Your task to perform on an android device: install app "Microsoft Authenticator" Image 0: 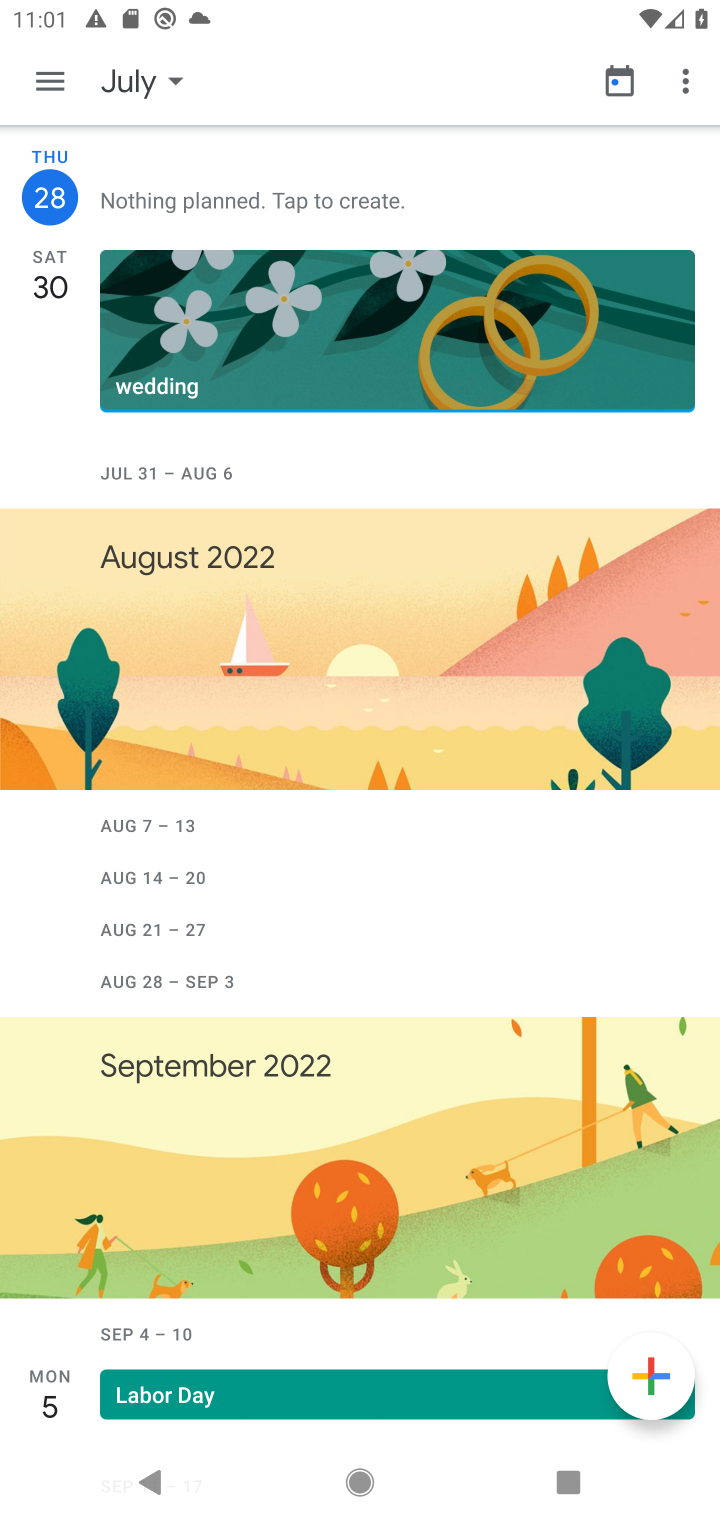
Step 0: press home button
Your task to perform on an android device: install app "Microsoft Authenticator" Image 1: 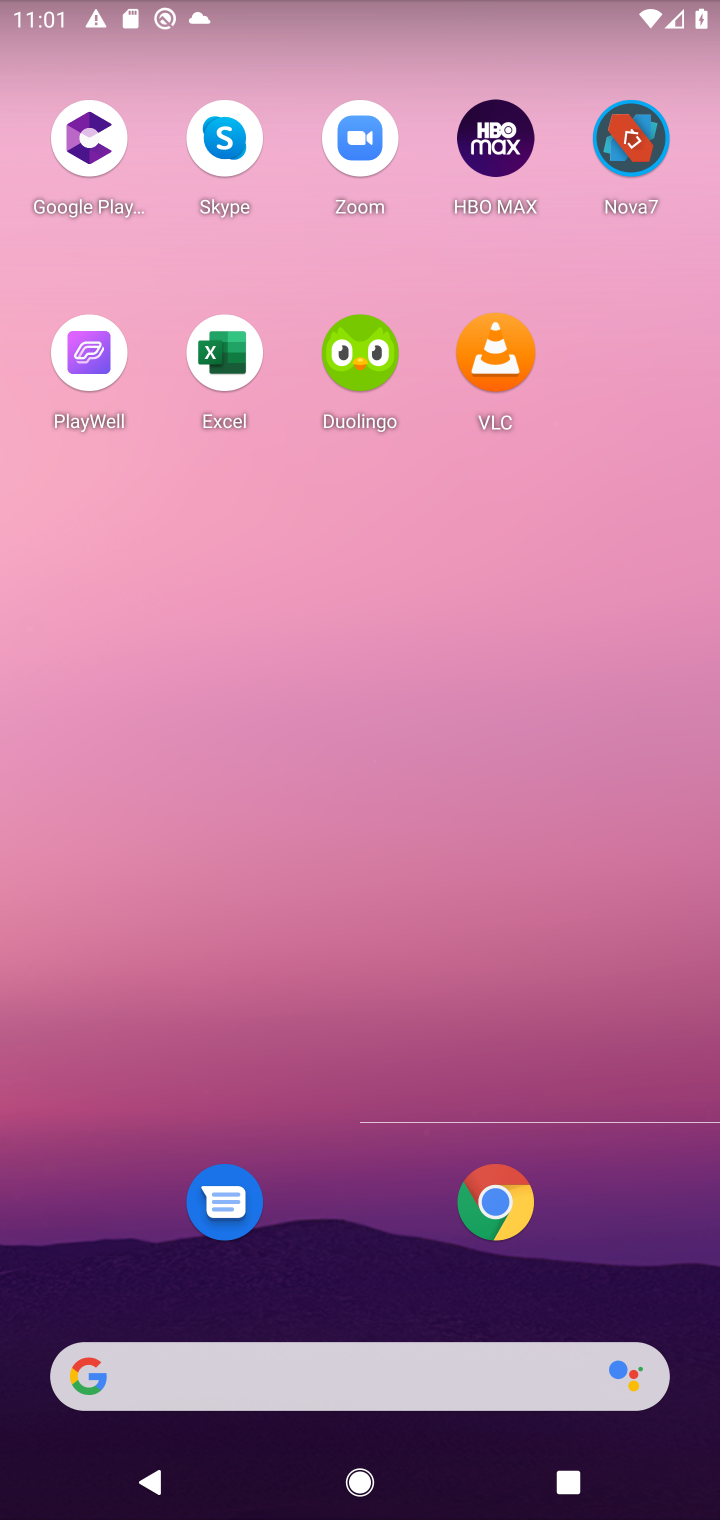
Step 1: click (352, 1363)
Your task to perform on an android device: install app "Microsoft Authenticator" Image 2: 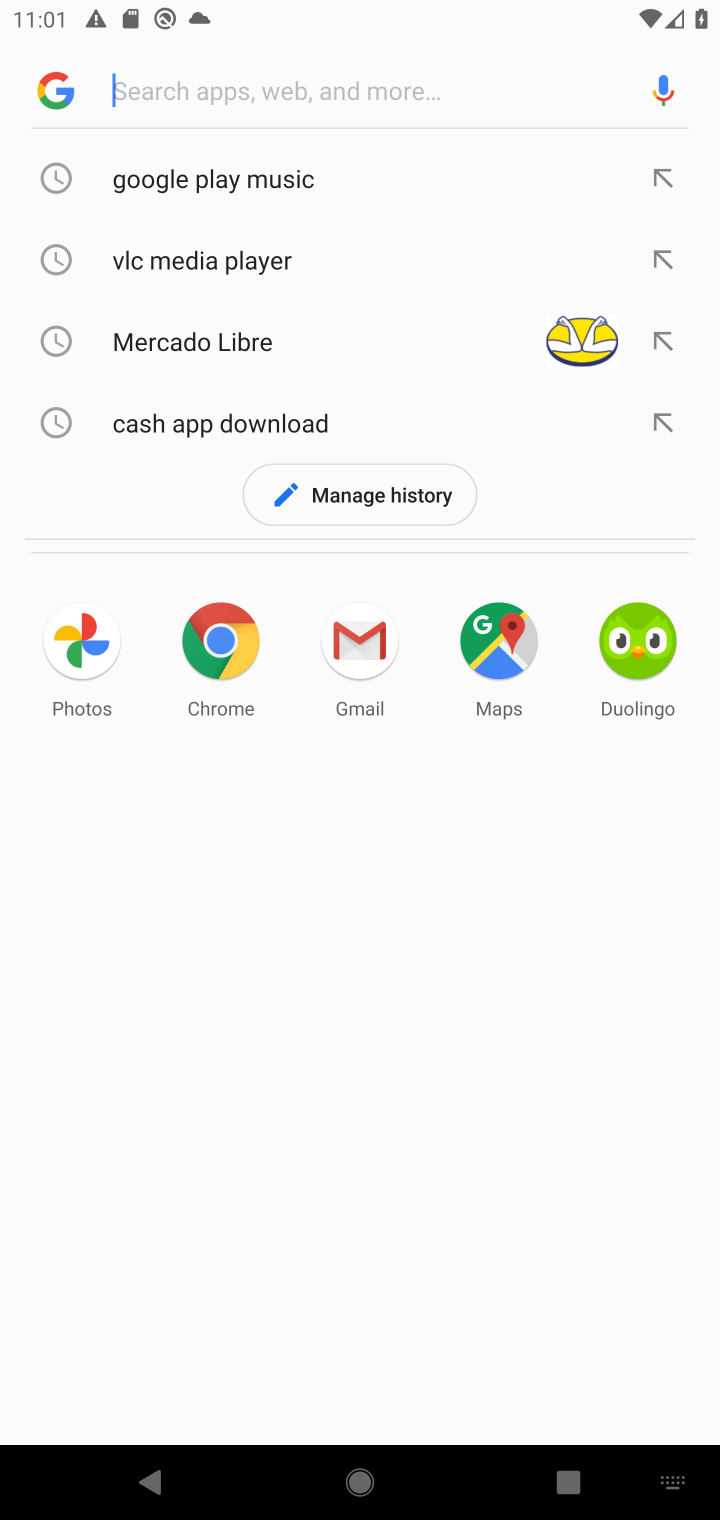
Step 2: type "microsoft authenticator"
Your task to perform on an android device: install app "Microsoft Authenticator" Image 3: 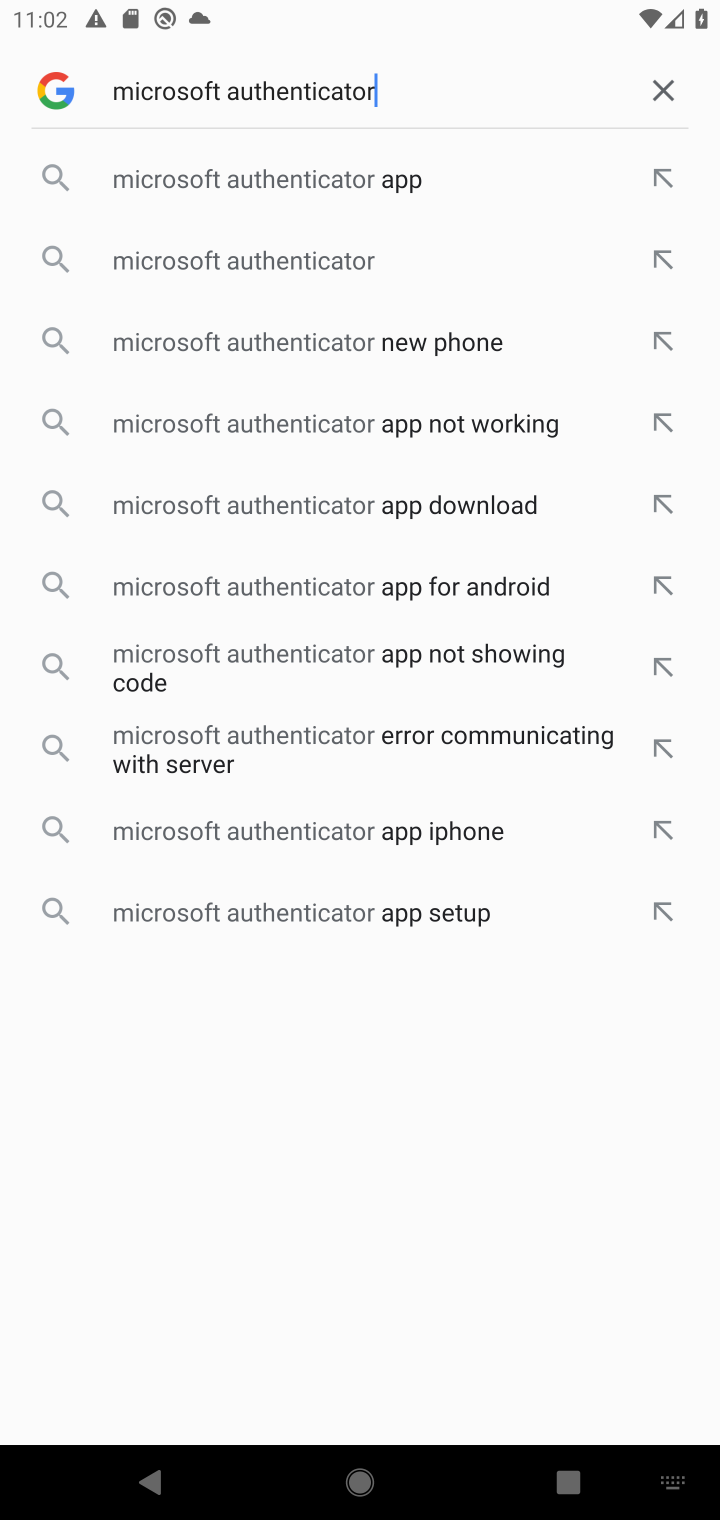
Step 3: click (472, 102)
Your task to perform on an android device: install app "Microsoft Authenticator" Image 4: 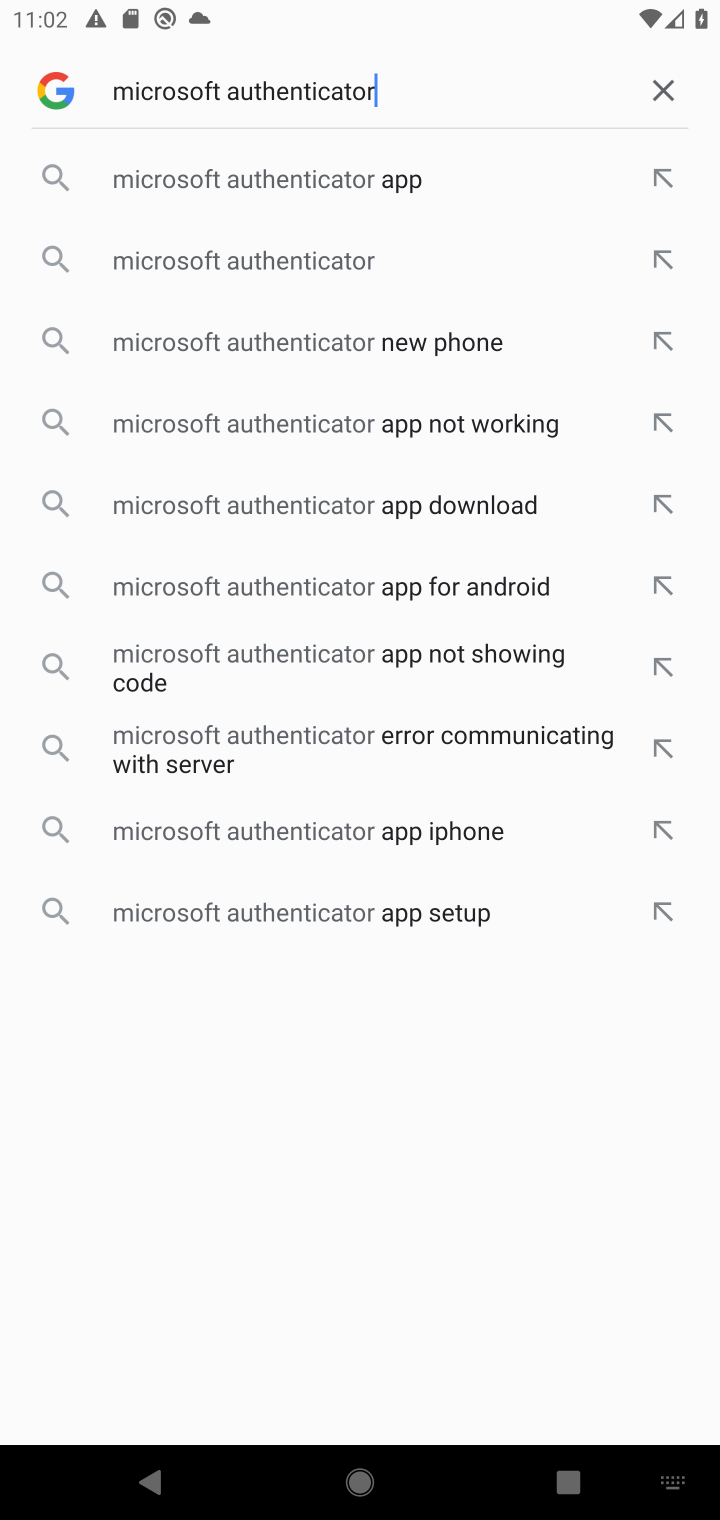
Step 4: click (468, 178)
Your task to perform on an android device: install app "Microsoft Authenticator" Image 5: 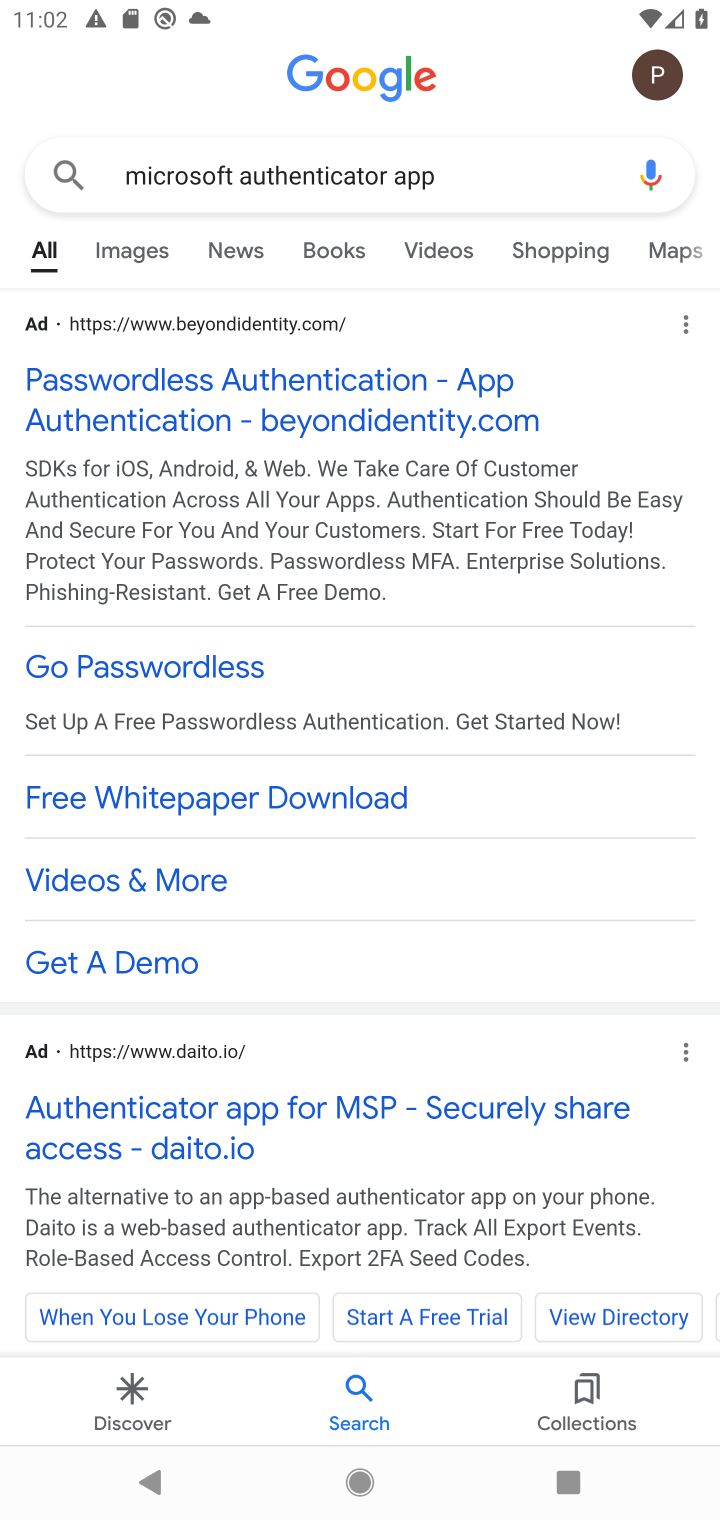
Step 5: drag from (462, 1074) to (458, 464)
Your task to perform on an android device: install app "Microsoft Authenticator" Image 6: 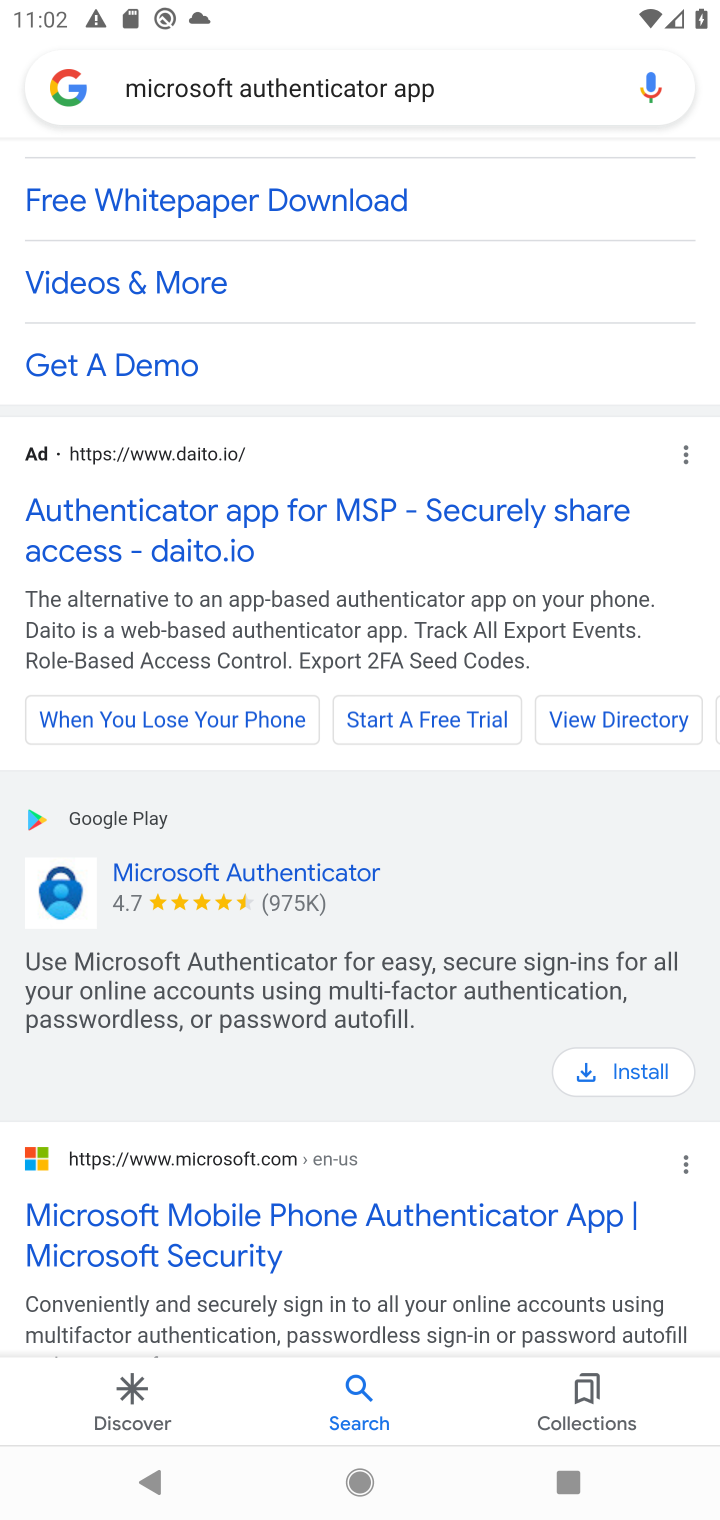
Step 6: click (646, 1072)
Your task to perform on an android device: install app "Microsoft Authenticator" Image 7: 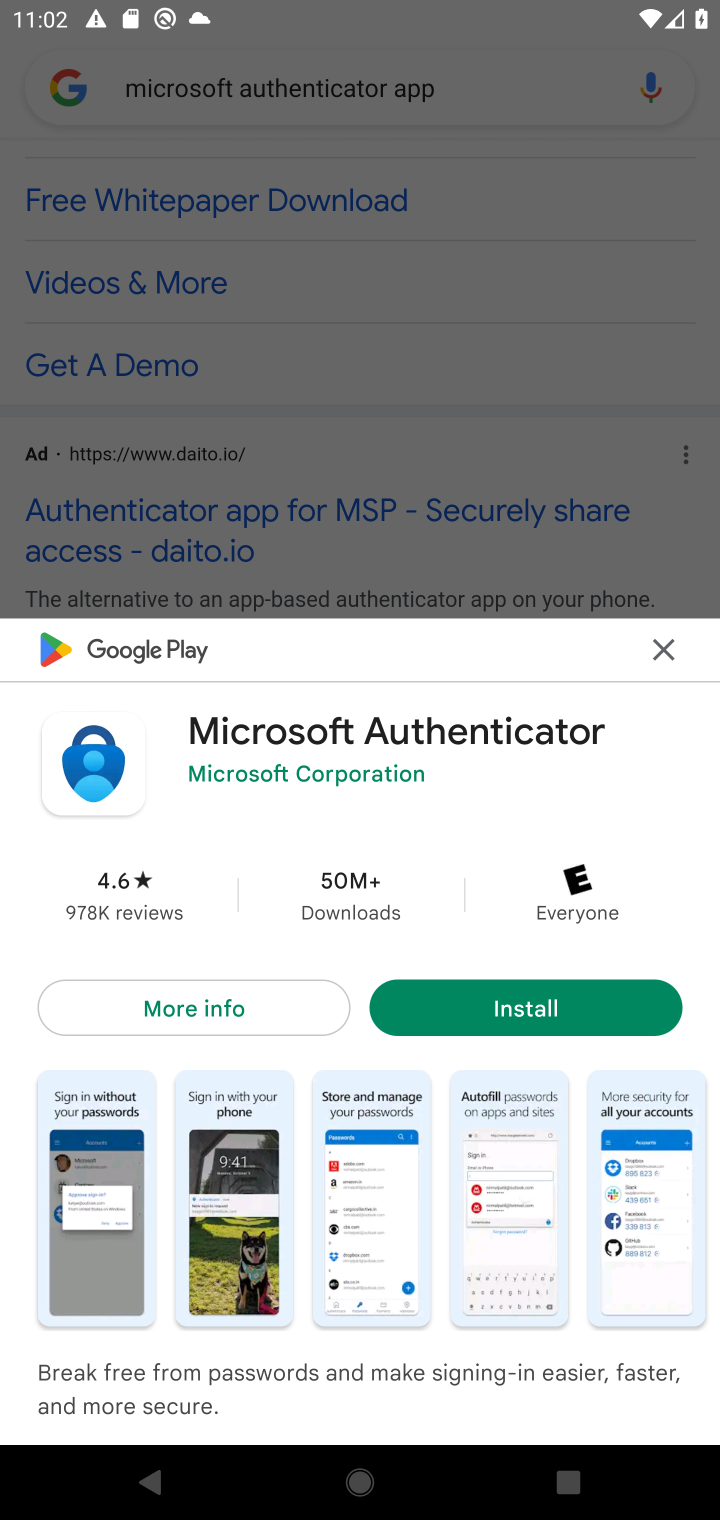
Step 7: click (511, 985)
Your task to perform on an android device: install app "Microsoft Authenticator" Image 8: 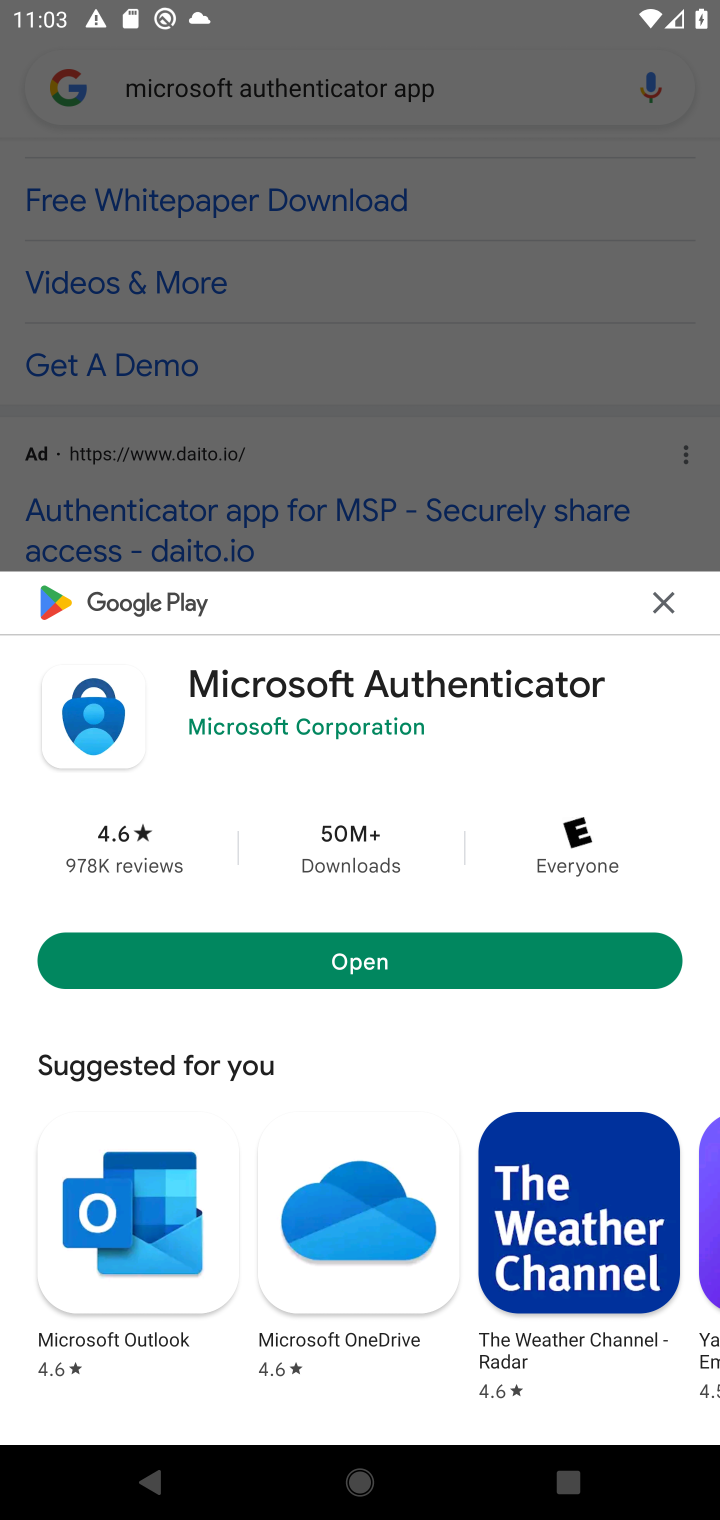
Step 8: click (351, 934)
Your task to perform on an android device: install app "Microsoft Authenticator" Image 9: 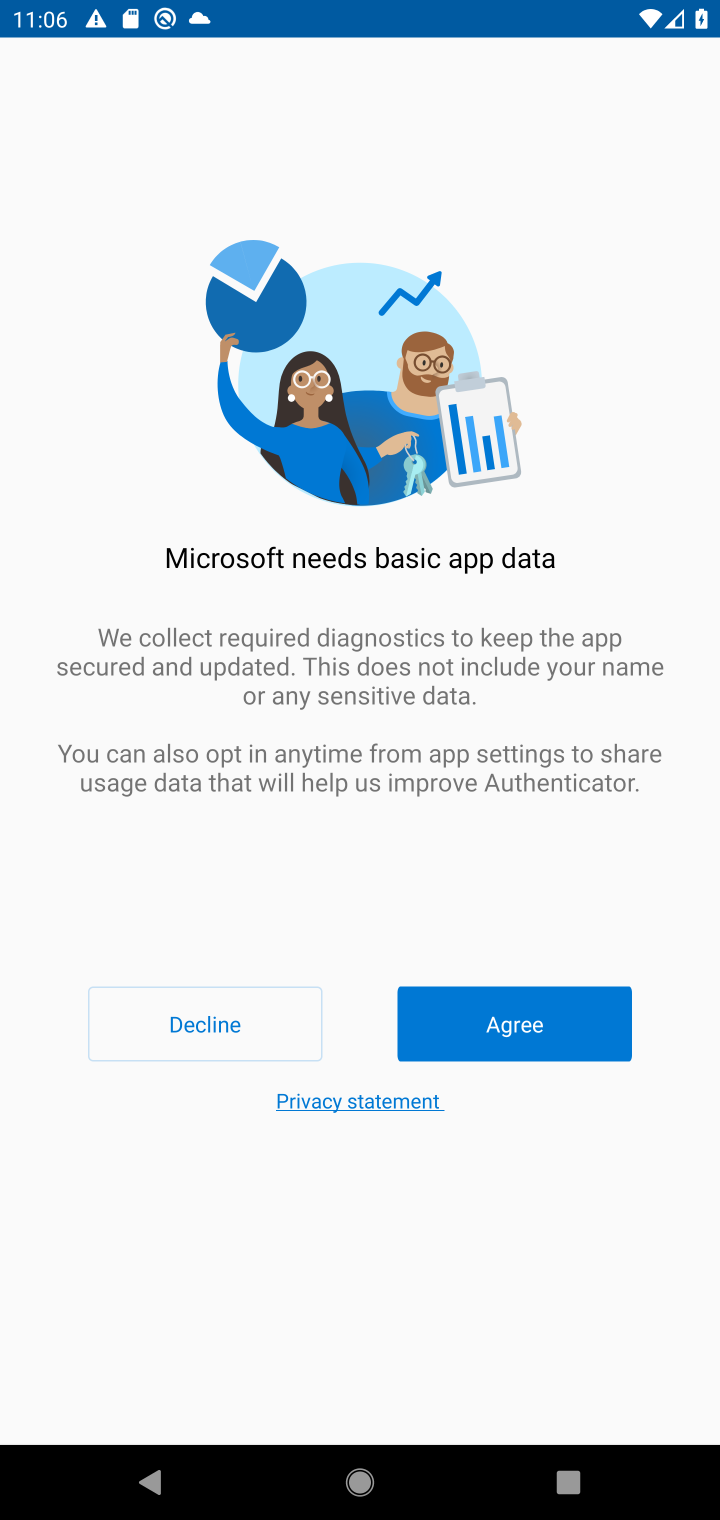
Step 9: press home button
Your task to perform on an android device: install app "Microsoft Authenticator" Image 10: 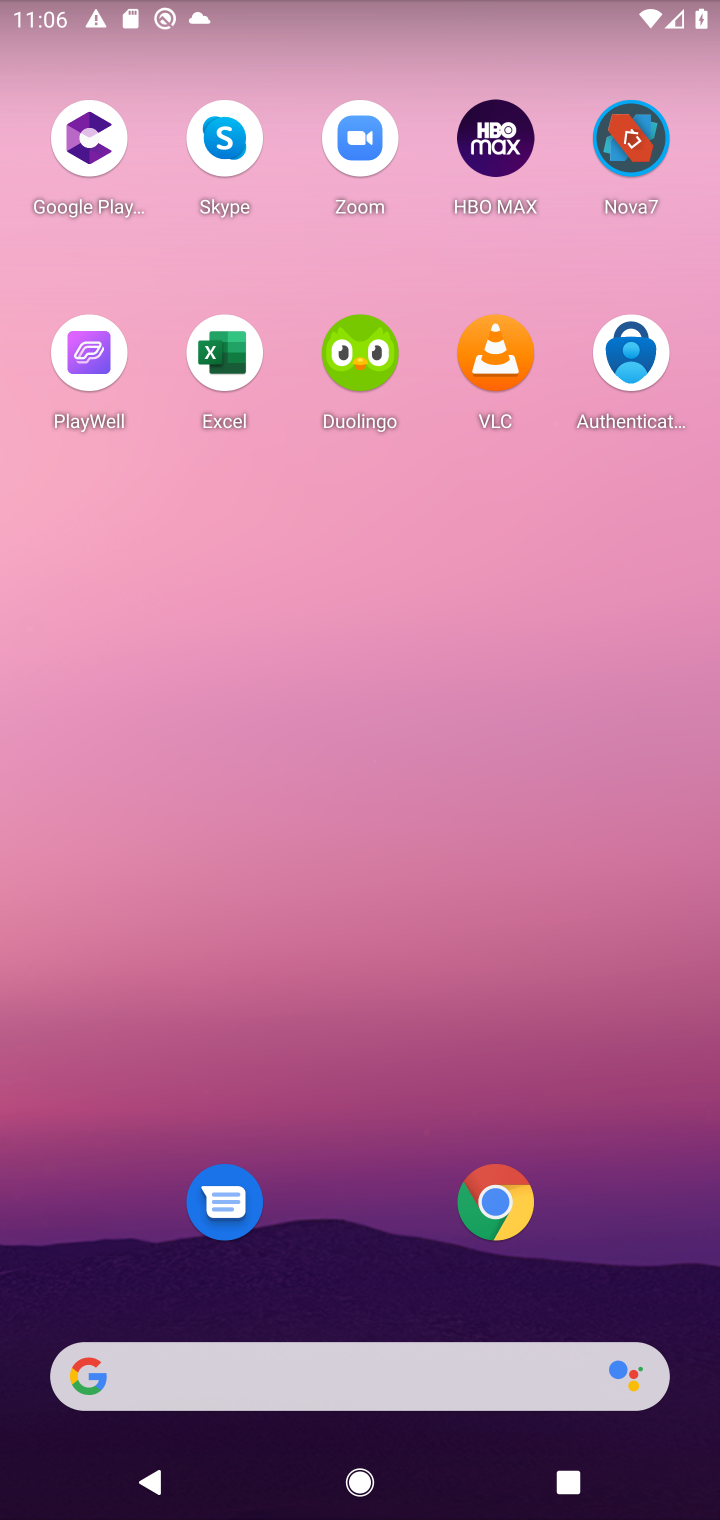
Step 10: click (658, 375)
Your task to perform on an android device: install app "Microsoft Authenticator" Image 11: 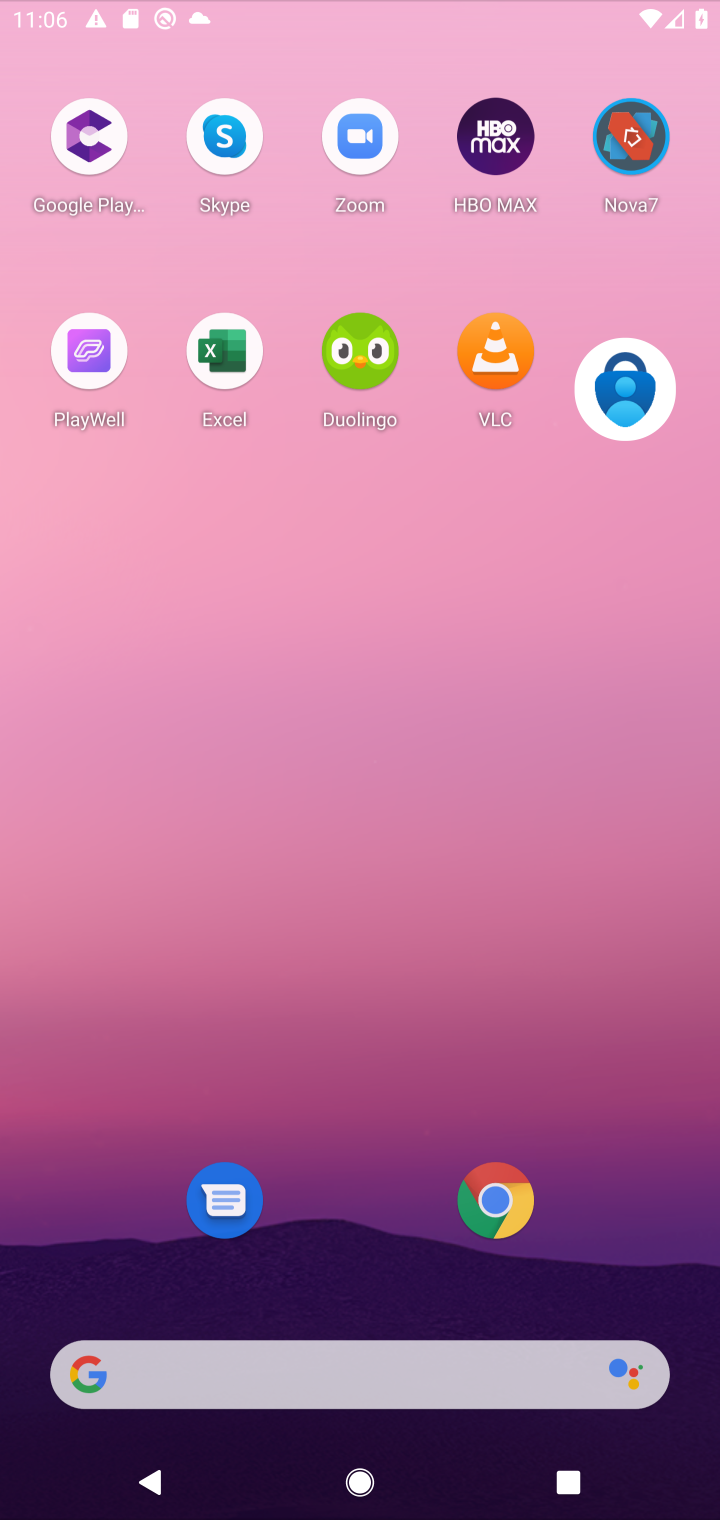
Step 11: task complete